Your task to perform on an android device: When is my next meeting? Image 0: 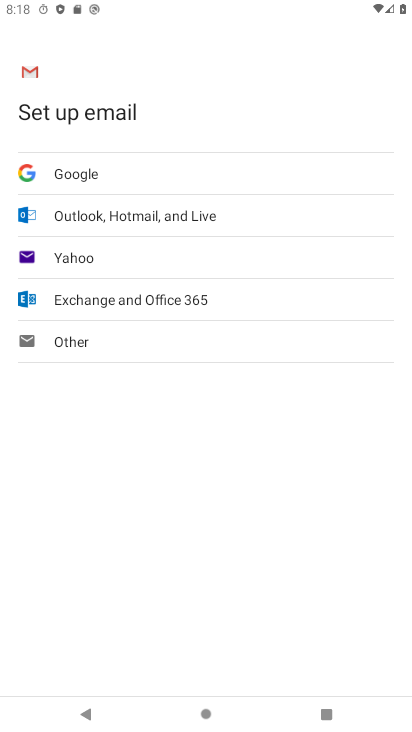
Step 0: press home button
Your task to perform on an android device: When is my next meeting? Image 1: 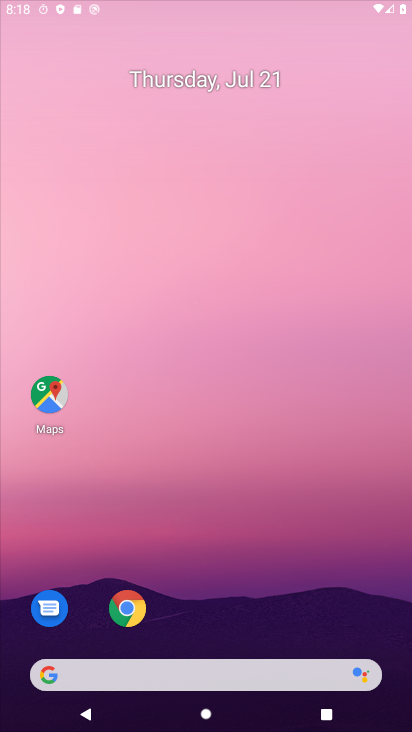
Step 1: drag from (273, 662) to (265, 68)
Your task to perform on an android device: When is my next meeting? Image 2: 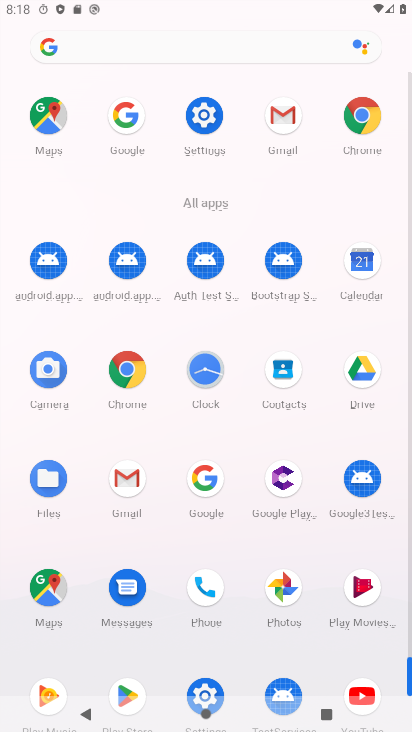
Step 2: click (352, 274)
Your task to perform on an android device: When is my next meeting? Image 3: 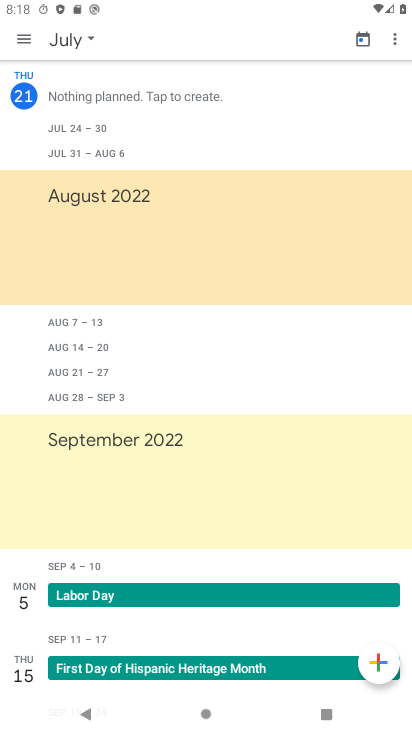
Step 3: click (101, 35)
Your task to perform on an android device: When is my next meeting? Image 4: 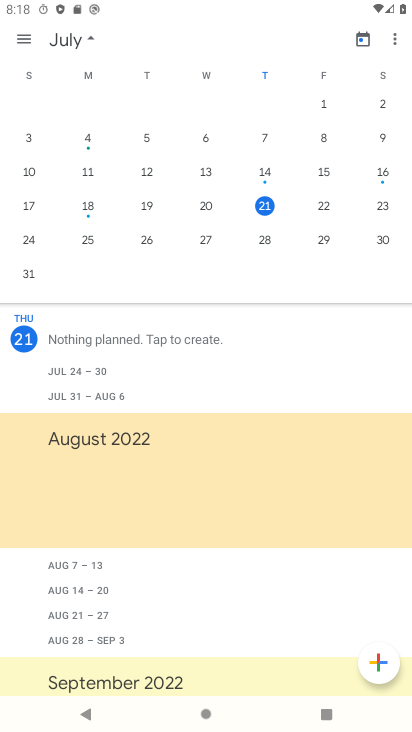
Step 4: click (329, 210)
Your task to perform on an android device: When is my next meeting? Image 5: 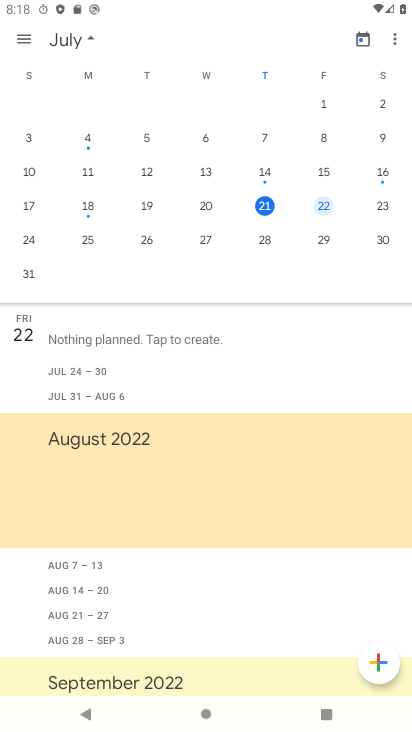
Step 5: click (73, 37)
Your task to perform on an android device: When is my next meeting? Image 6: 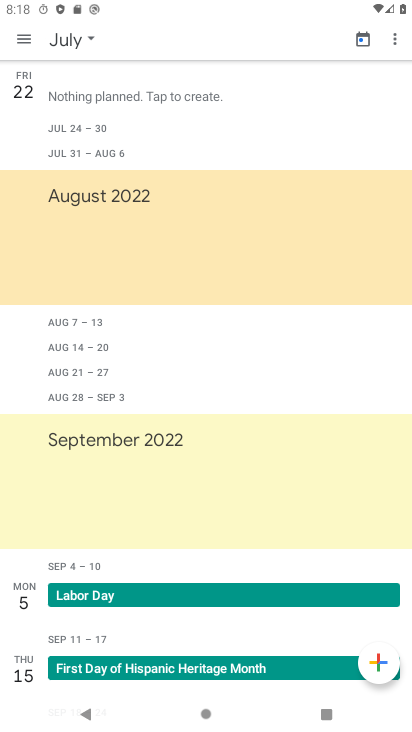
Step 6: task complete